Your task to perform on an android device: Open Reddit.com Image 0: 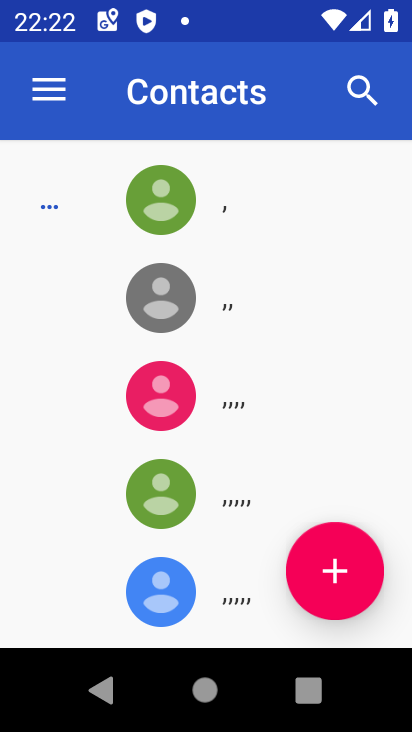
Step 0: press home button
Your task to perform on an android device: Open Reddit.com Image 1: 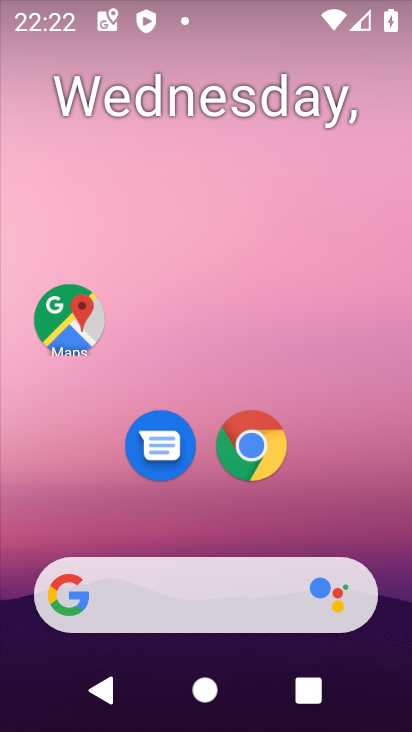
Step 1: drag from (306, 526) to (278, 189)
Your task to perform on an android device: Open Reddit.com Image 2: 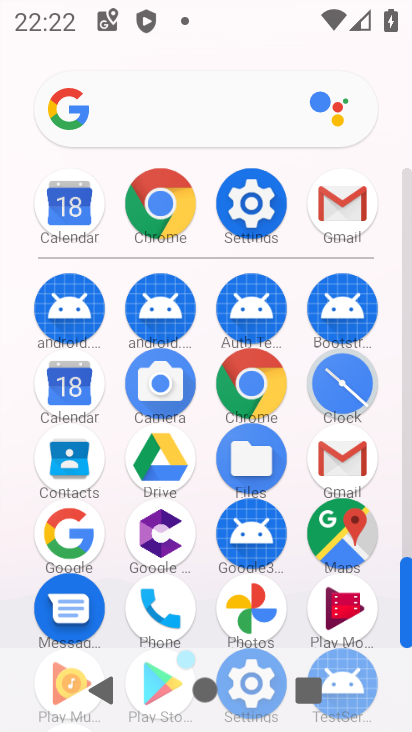
Step 2: click (163, 216)
Your task to perform on an android device: Open Reddit.com Image 3: 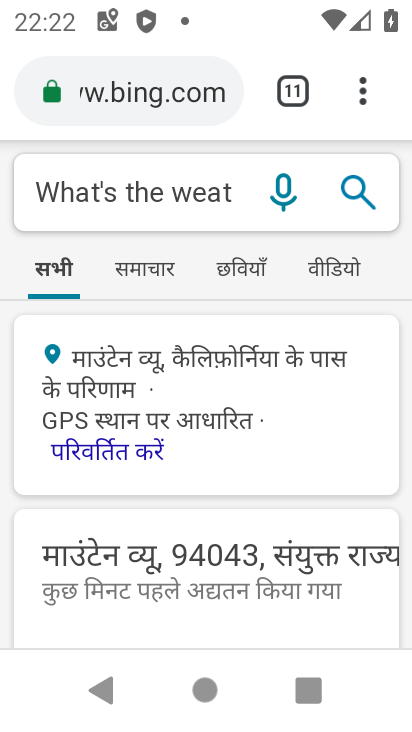
Step 3: click (354, 84)
Your task to perform on an android device: Open Reddit.com Image 4: 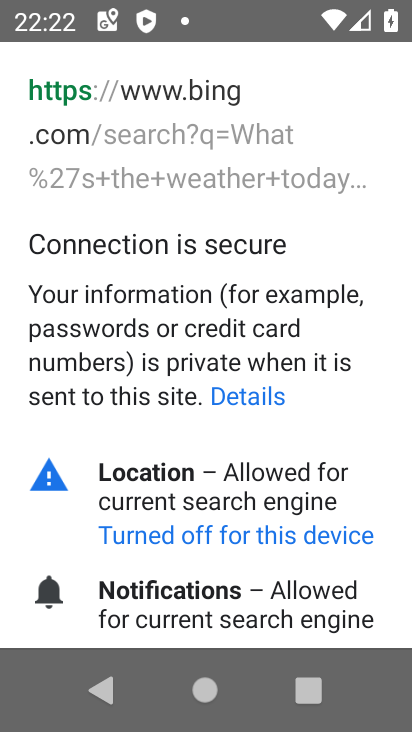
Step 4: press back button
Your task to perform on an android device: Open Reddit.com Image 5: 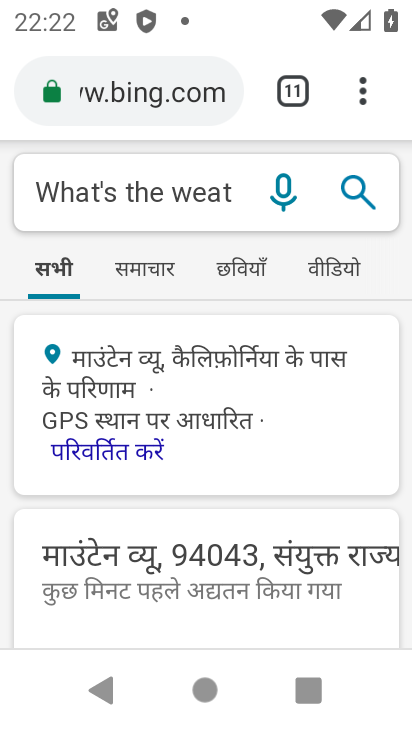
Step 5: click (369, 90)
Your task to perform on an android device: Open Reddit.com Image 6: 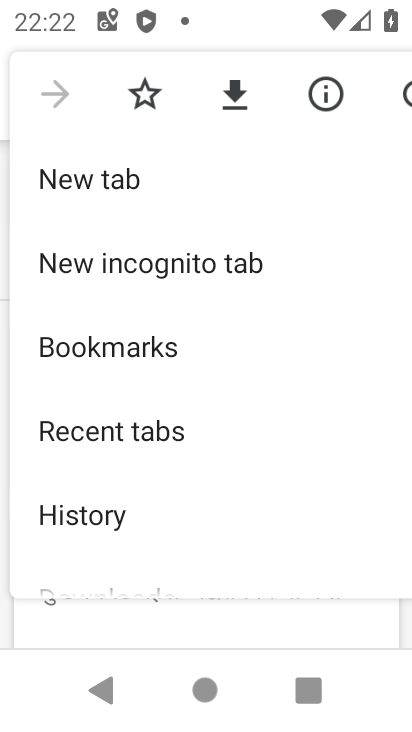
Step 6: click (136, 177)
Your task to perform on an android device: Open Reddit.com Image 7: 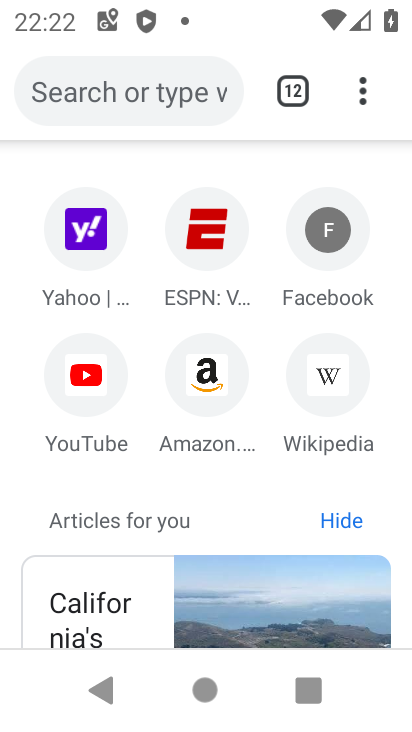
Step 7: click (106, 82)
Your task to perform on an android device: Open Reddit.com Image 8: 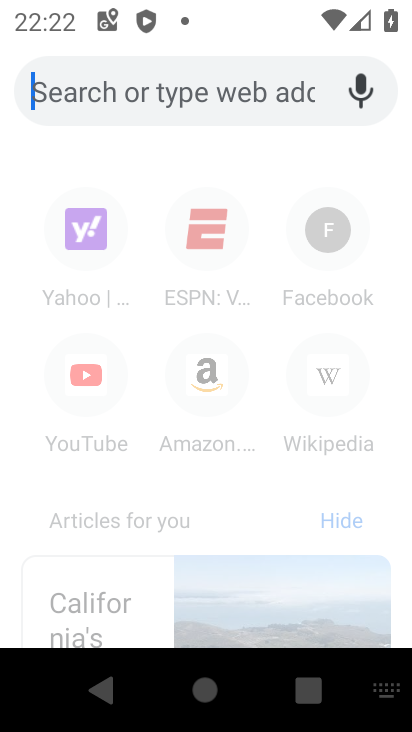
Step 8: type "Reddit.com"
Your task to perform on an android device: Open Reddit.com Image 9: 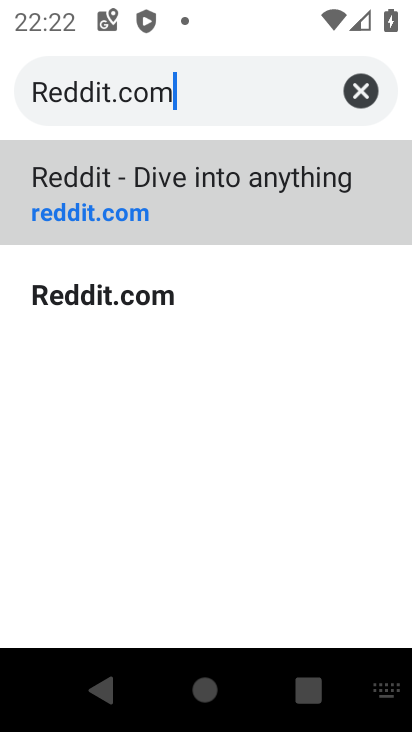
Step 9: click (111, 172)
Your task to perform on an android device: Open Reddit.com Image 10: 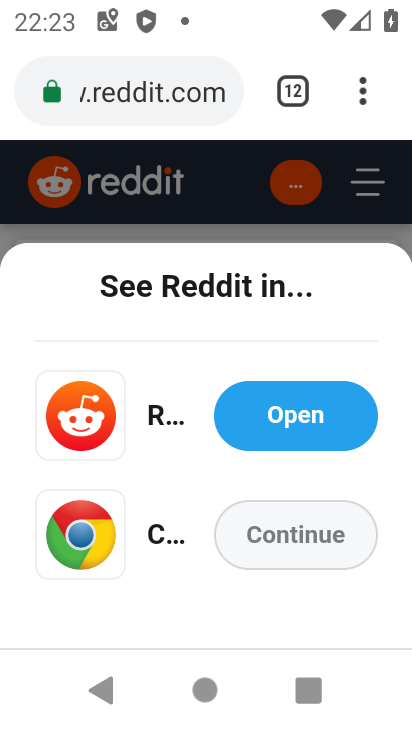
Step 10: click (120, 180)
Your task to perform on an android device: Open Reddit.com Image 11: 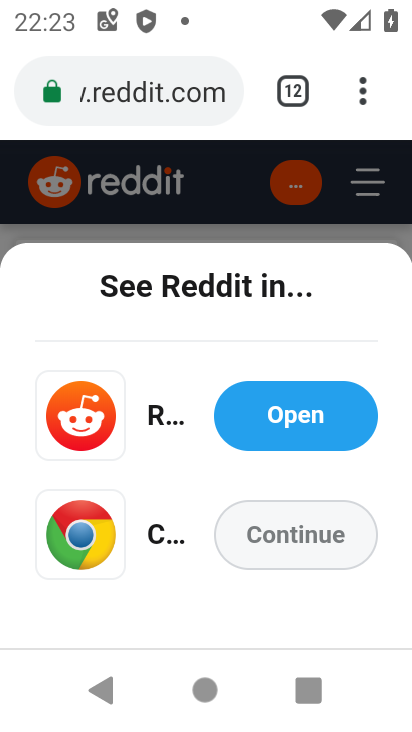
Step 11: task complete